Your task to perform on an android device: Open Wikipedia Image 0: 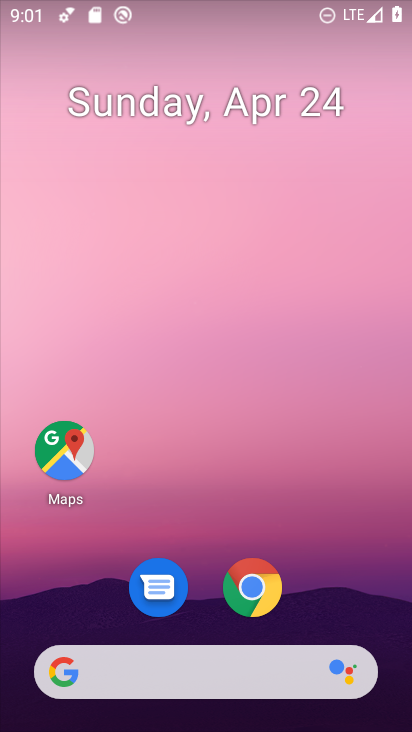
Step 0: drag from (378, 569) to (325, 130)
Your task to perform on an android device: Open Wikipedia Image 1: 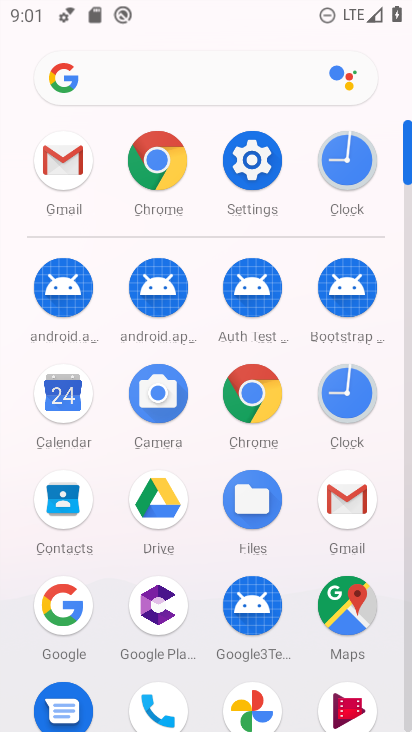
Step 1: click (251, 391)
Your task to perform on an android device: Open Wikipedia Image 2: 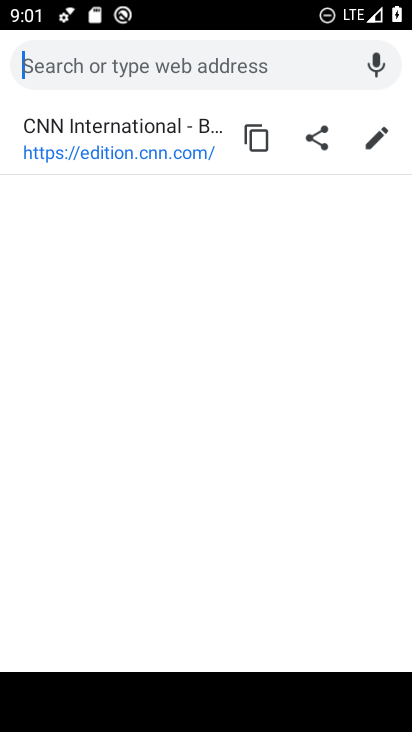
Step 2: type "wikipedia"
Your task to perform on an android device: Open Wikipedia Image 3: 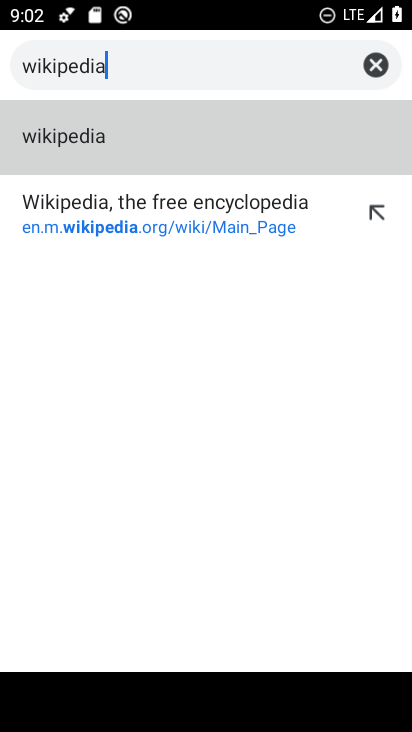
Step 3: click (200, 212)
Your task to perform on an android device: Open Wikipedia Image 4: 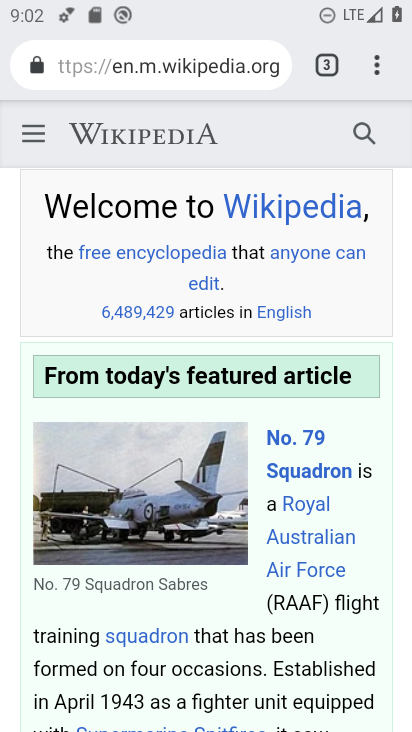
Step 4: task complete